Your task to perform on an android device: Show me popular videos on Youtube Image 0: 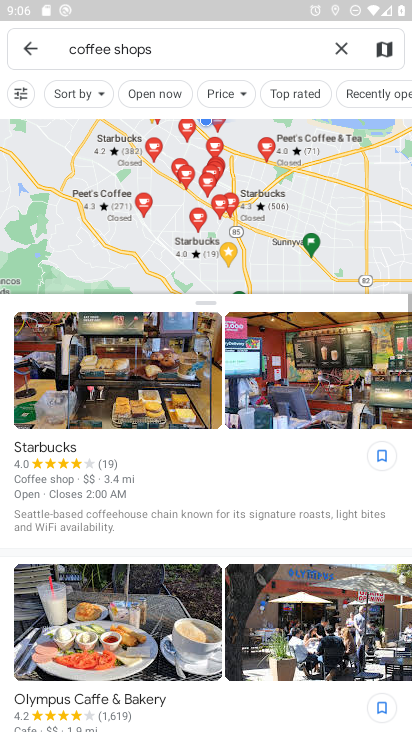
Step 0: press home button
Your task to perform on an android device: Show me popular videos on Youtube Image 1: 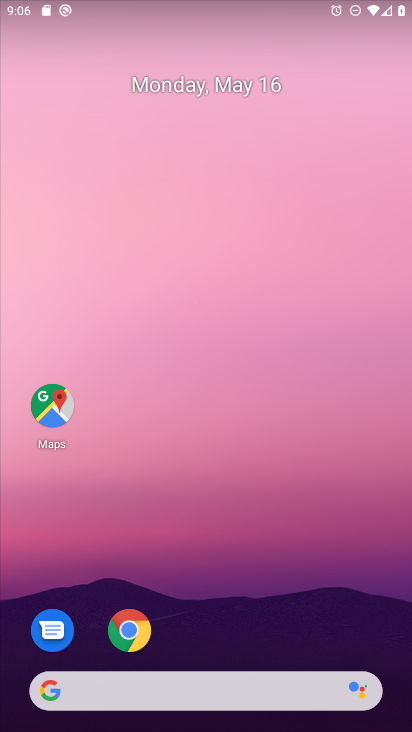
Step 1: drag from (194, 578) to (221, 325)
Your task to perform on an android device: Show me popular videos on Youtube Image 2: 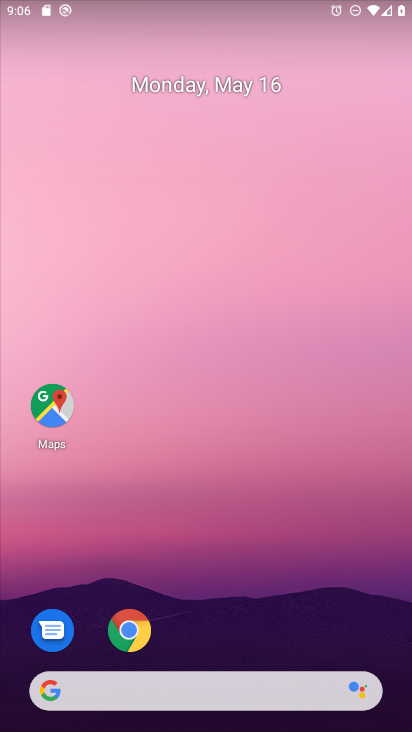
Step 2: drag from (229, 543) to (209, 66)
Your task to perform on an android device: Show me popular videos on Youtube Image 3: 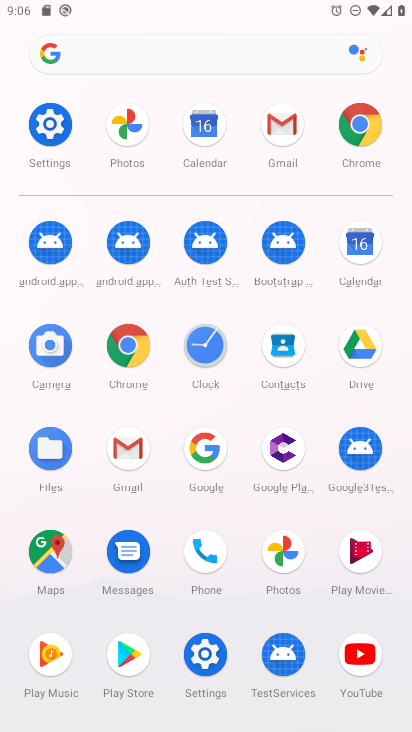
Step 3: click (359, 678)
Your task to perform on an android device: Show me popular videos on Youtube Image 4: 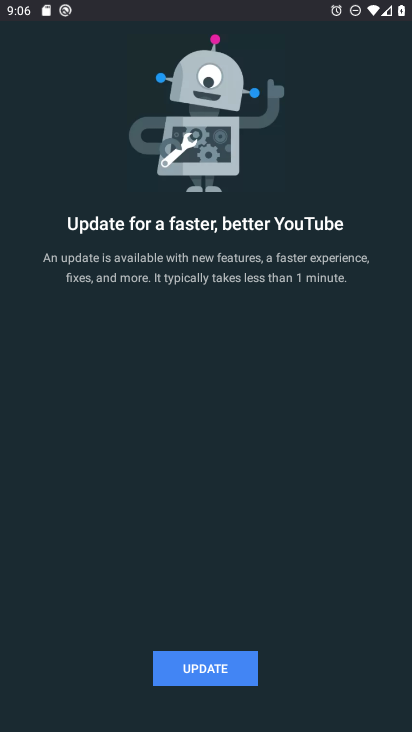
Step 4: click (204, 656)
Your task to perform on an android device: Show me popular videos on Youtube Image 5: 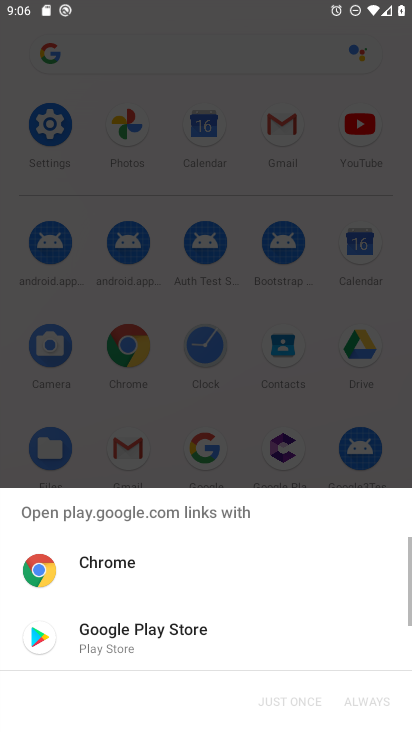
Step 5: click (205, 631)
Your task to perform on an android device: Show me popular videos on Youtube Image 6: 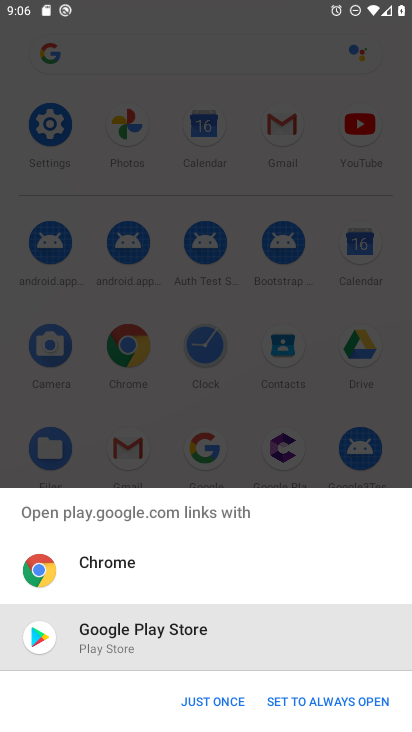
Step 6: click (285, 704)
Your task to perform on an android device: Show me popular videos on Youtube Image 7: 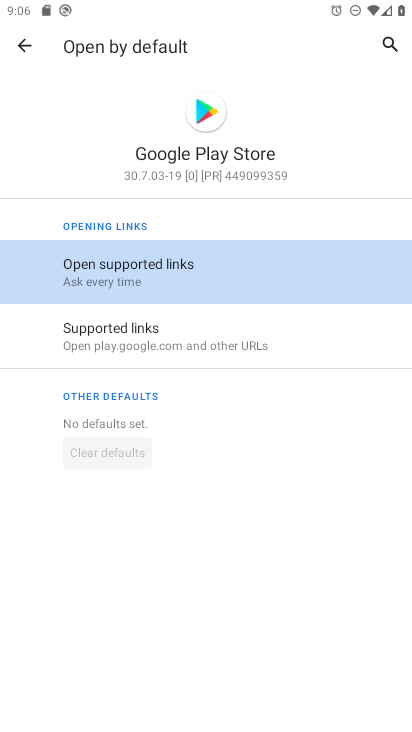
Step 7: click (287, 270)
Your task to perform on an android device: Show me popular videos on Youtube Image 8: 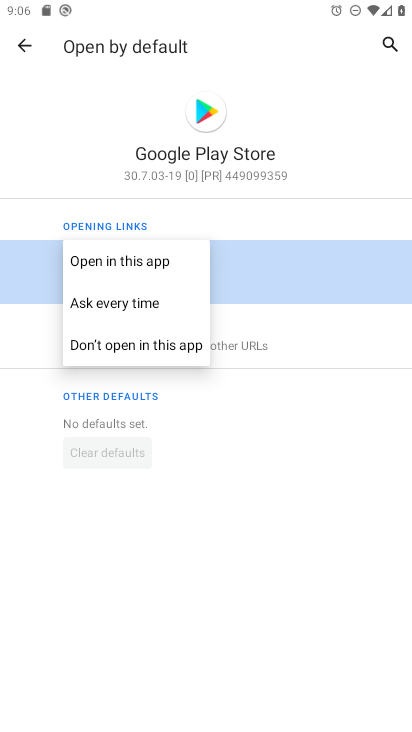
Step 8: click (173, 299)
Your task to perform on an android device: Show me popular videos on Youtube Image 9: 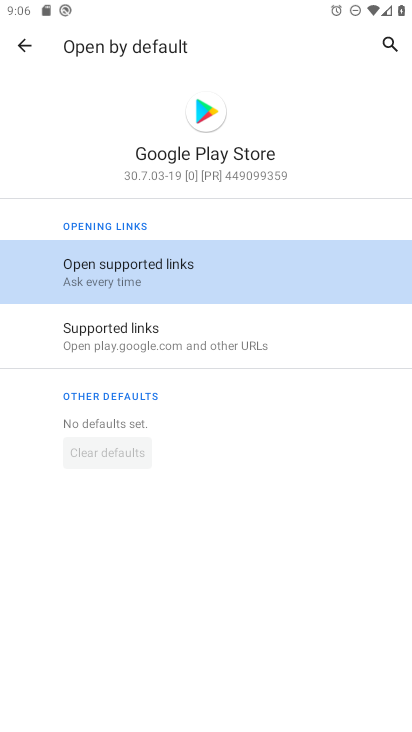
Step 9: click (185, 272)
Your task to perform on an android device: Show me popular videos on Youtube Image 10: 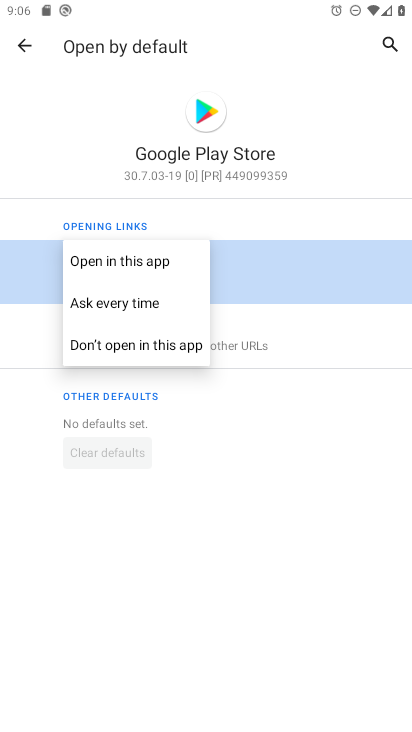
Step 10: click (125, 342)
Your task to perform on an android device: Show me popular videos on Youtube Image 11: 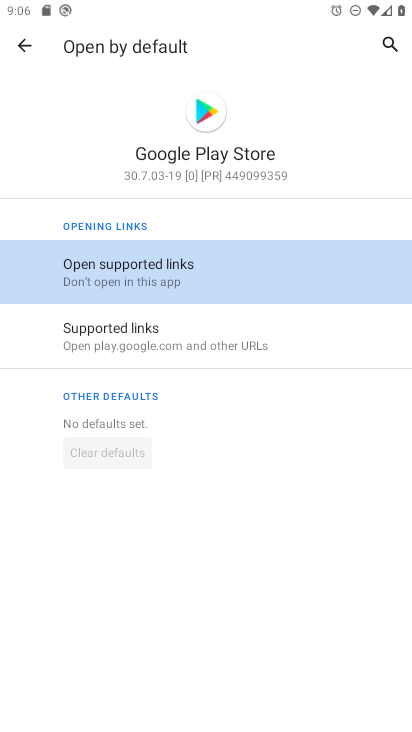
Step 11: click (157, 341)
Your task to perform on an android device: Show me popular videos on Youtube Image 12: 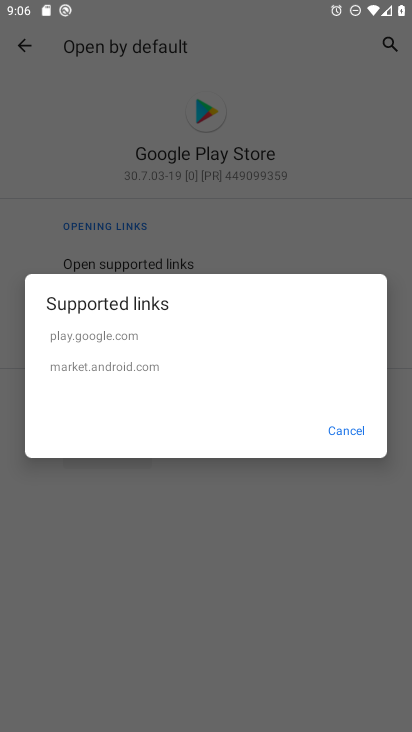
Step 12: click (344, 438)
Your task to perform on an android device: Show me popular videos on Youtube Image 13: 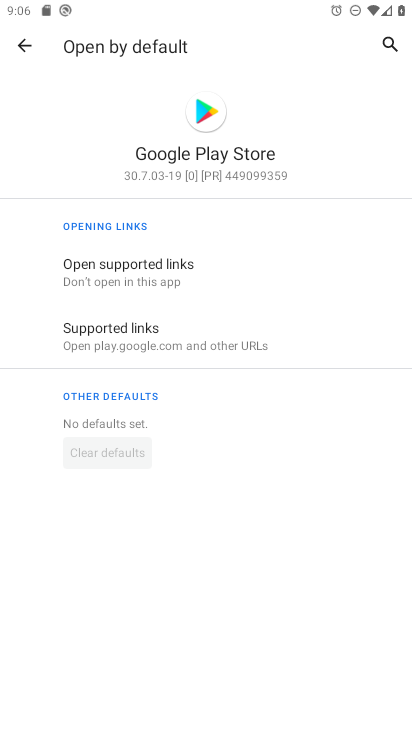
Step 13: task complete